Your task to perform on an android device: Open the map Image 0: 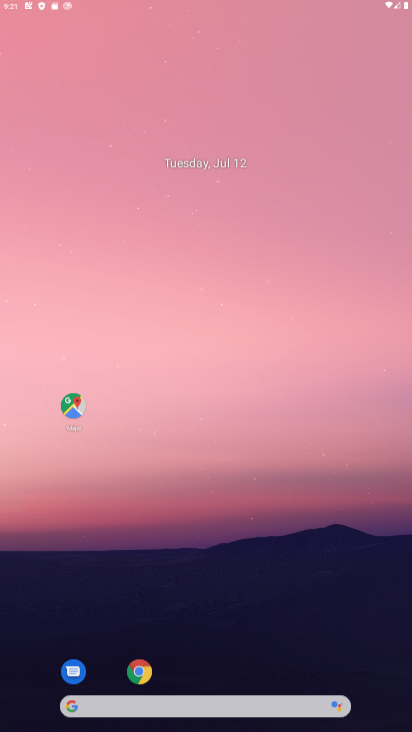
Step 0: press home button
Your task to perform on an android device: Open the map Image 1: 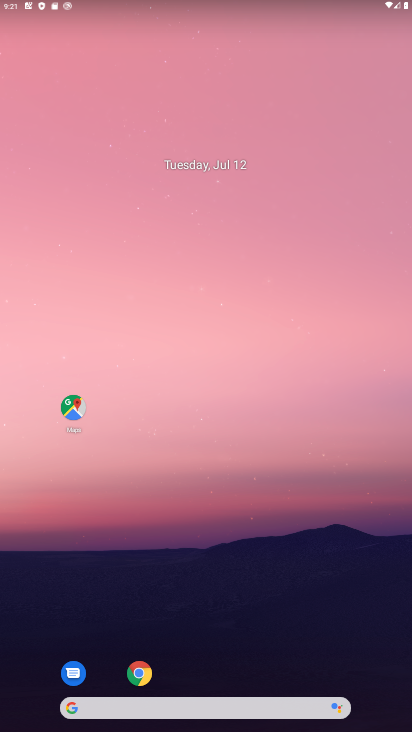
Step 1: click (71, 422)
Your task to perform on an android device: Open the map Image 2: 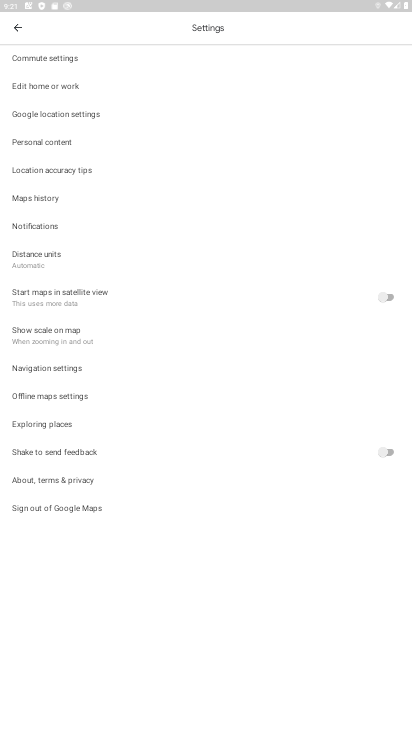
Step 2: task complete